Your task to perform on an android device: snooze an email in the gmail app Image 0: 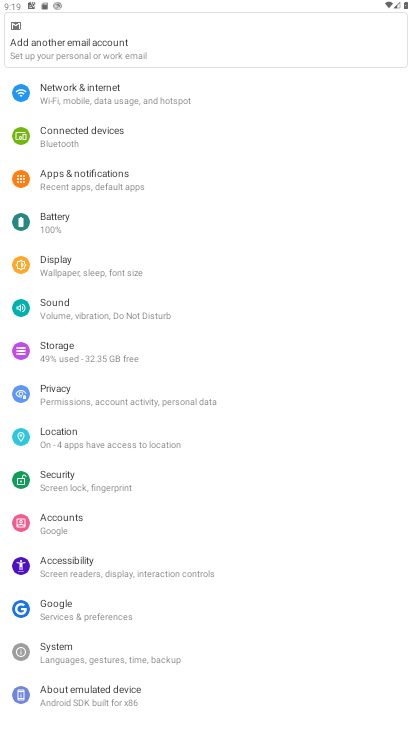
Step 0: press home button
Your task to perform on an android device: snooze an email in the gmail app Image 1: 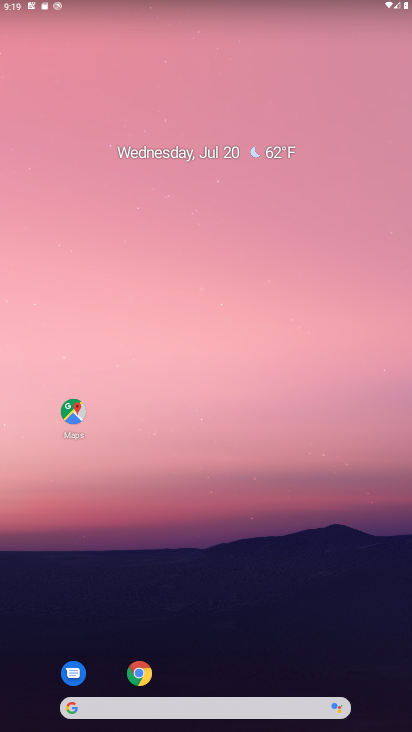
Step 1: drag from (394, 707) to (281, 54)
Your task to perform on an android device: snooze an email in the gmail app Image 2: 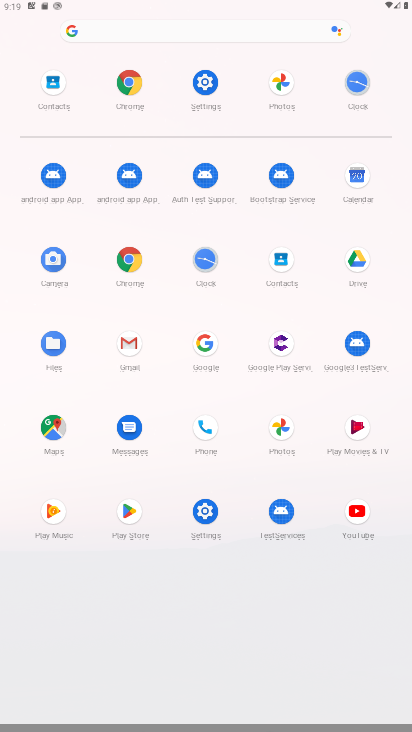
Step 2: click (131, 354)
Your task to perform on an android device: snooze an email in the gmail app Image 3: 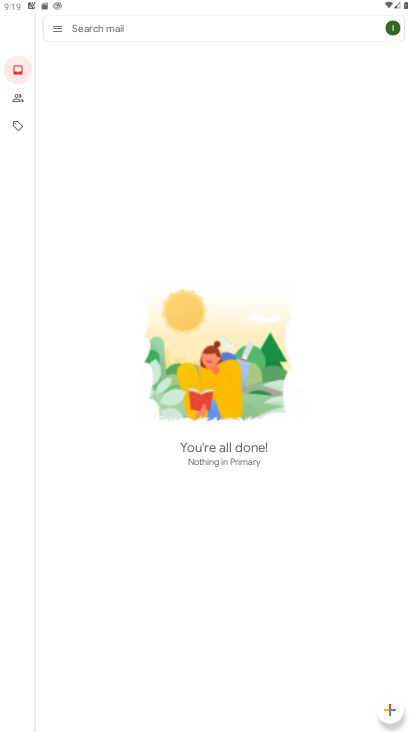
Step 3: click (54, 29)
Your task to perform on an android device: snooze an email in the gmail app Image 4: 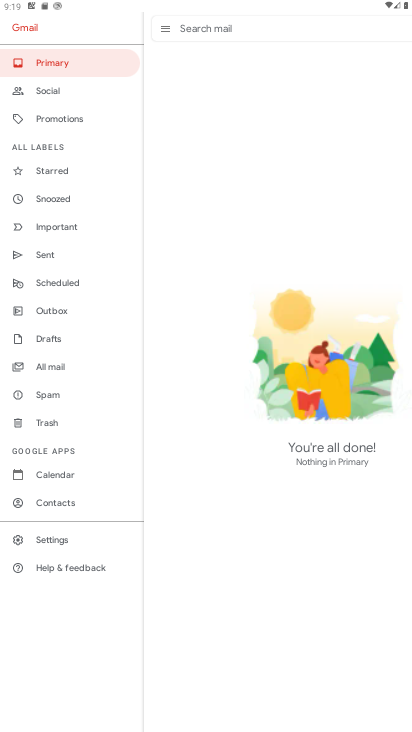
Step 4: click (63, 198)
Your task to perform on an android device: snooze an email in the gmail app Image 5: 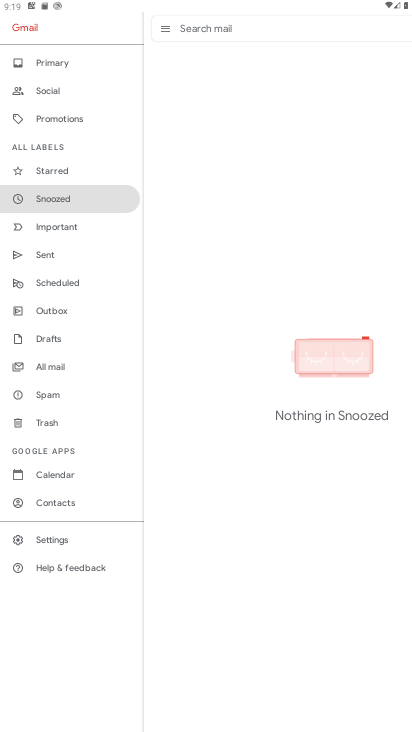
Step 5: task complete